Your task to perform on an android device: Open wifi settings Image 0: 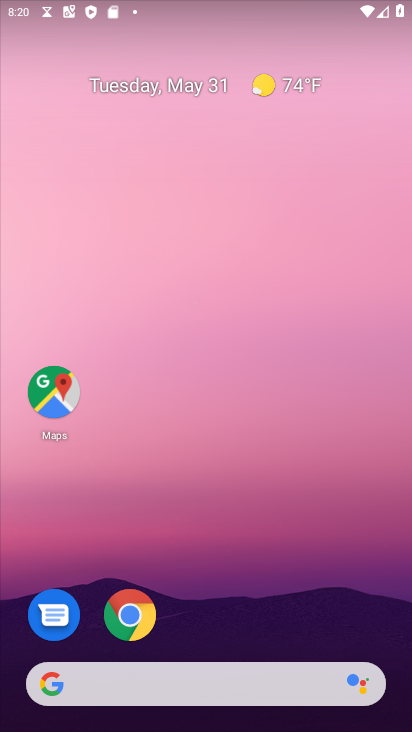
Step 0: press home button
Your task to perform on an android device: Open wifi settings Image 1: 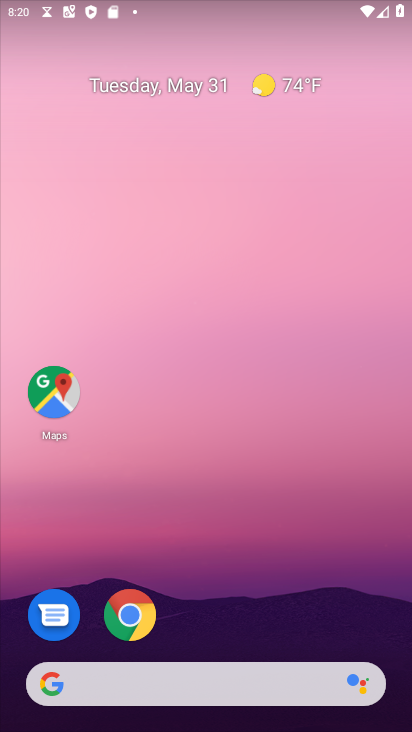
Step 1: drag from (136, 692) to (292, 96)
Your task to perform on an android device: Open wifi settings Image 2: 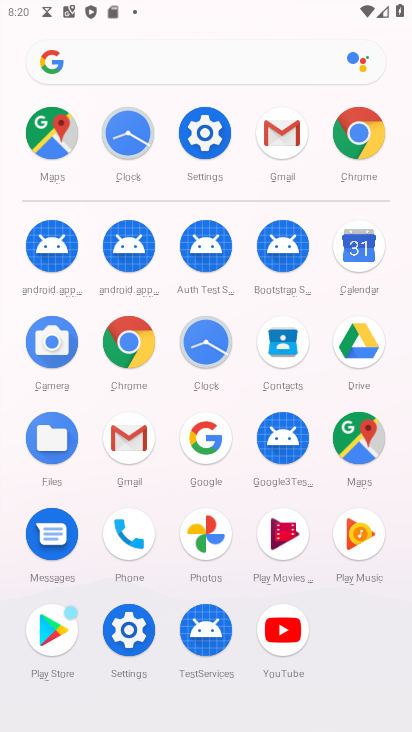
Step 2: click (196, 141)
Your task to perform on an android device: Open wifi settings Image 3: 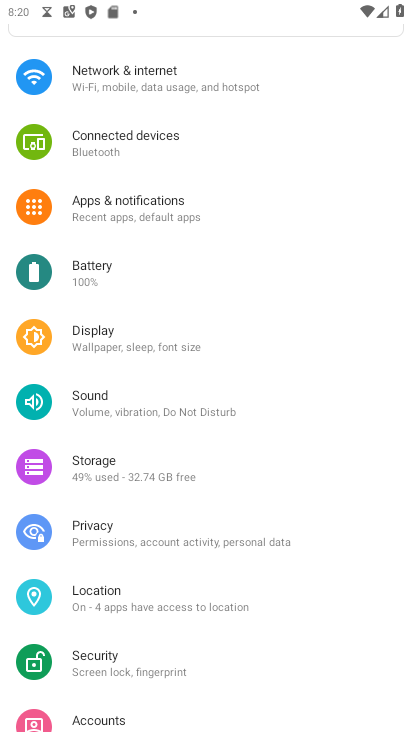
Step 3: click (130, 75)
Your task to perform on an android device: Open wifi settings Image 4: 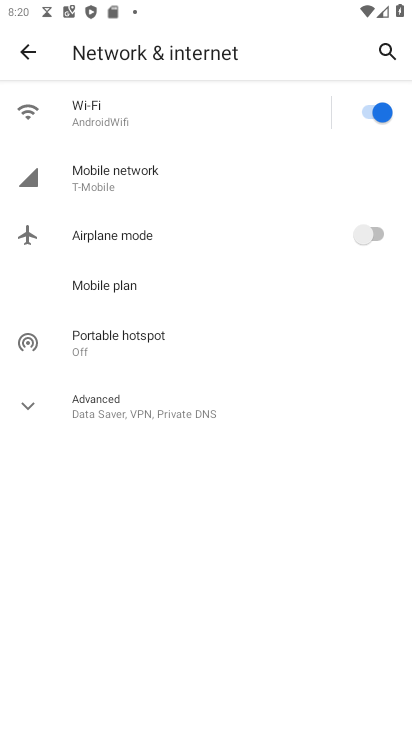
Step 4: click (96, 118)
Your task to perform on an android device: Open wifi settings Image 5: 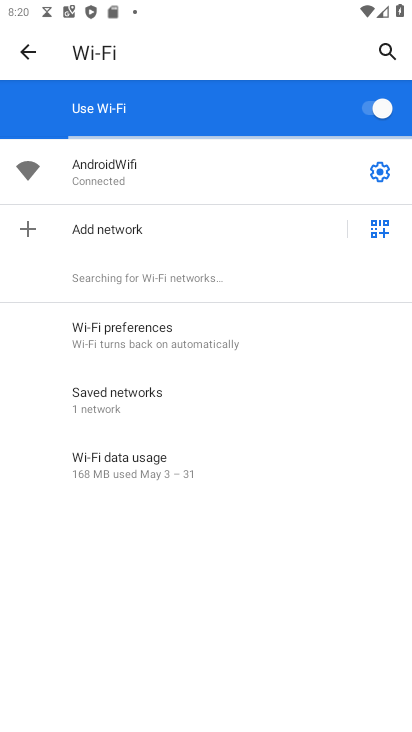
Step 5: task complete